Your task to perform on an android device: turn off location Image 0: 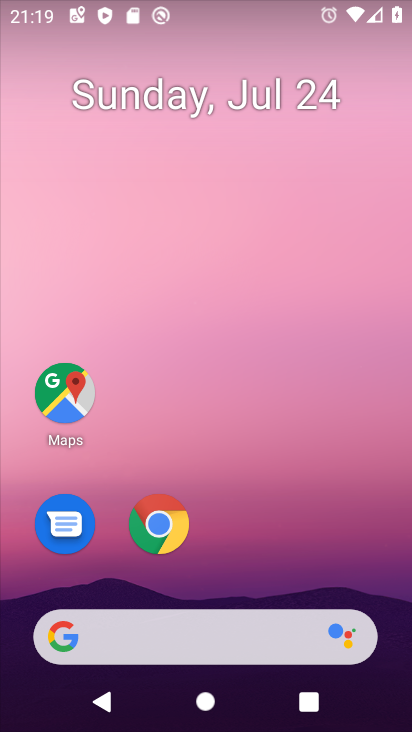
Step 0: drag from (306, 518) to (297, 3)
Your task to perform on an android device: turn off location Image 1: 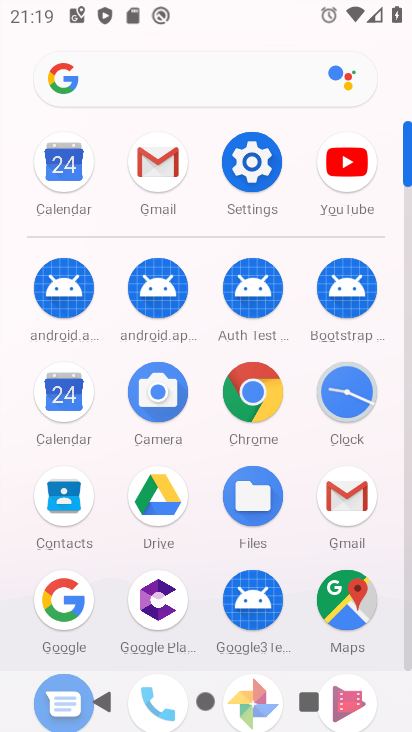
Step 1: click (257, 154)
Your task to perform on an android device: turn off location Image 2: 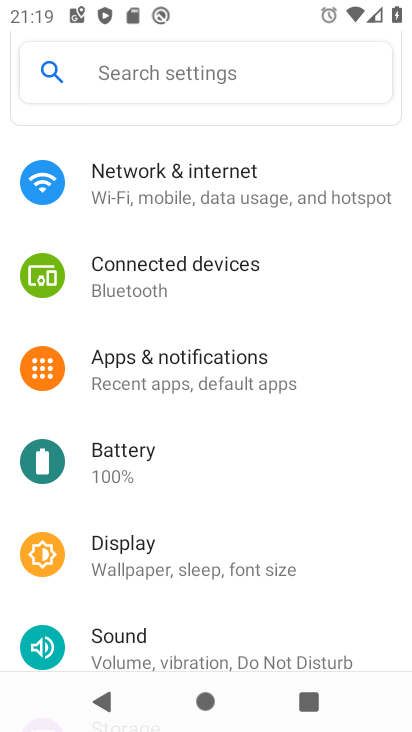
Step 2: drag from (223, 482) to (247, 4)
Your task to perform on an android device: turn off location Image 3: 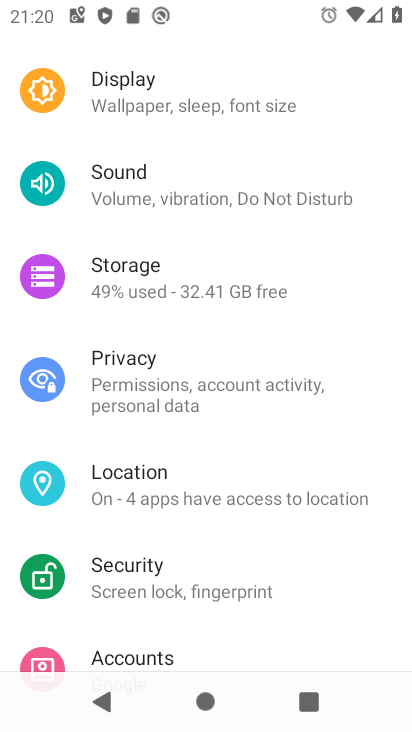
Step 3: click (169, 474)
Your task to perform on an android device: turn off location Image 4: 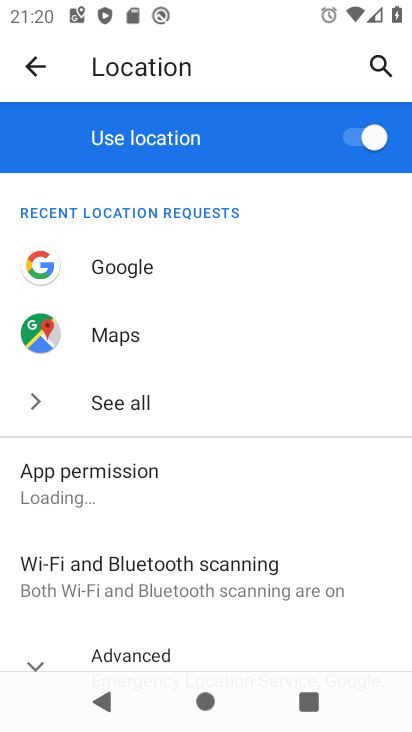
Step 4: click (371, 138)
Your task to perform on an android device: turn off location Image 5: 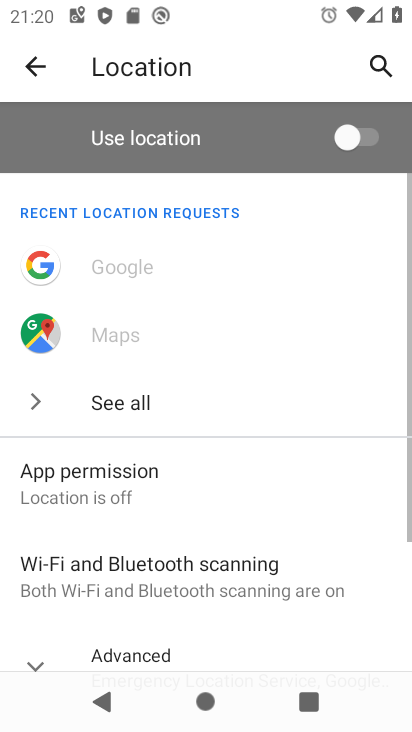
Step 5: task complete